Your task to perform on an android device: Go to ESPN.com Image 0: 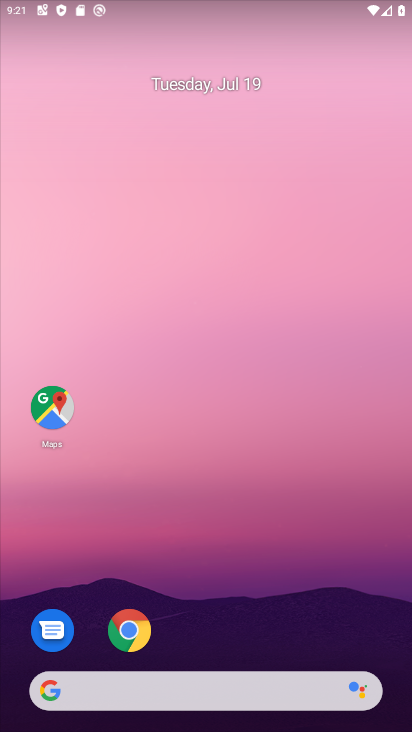
Step 0: click (134, 652)
Your task to perform on an android device: Go to ESPN.com Image 1: 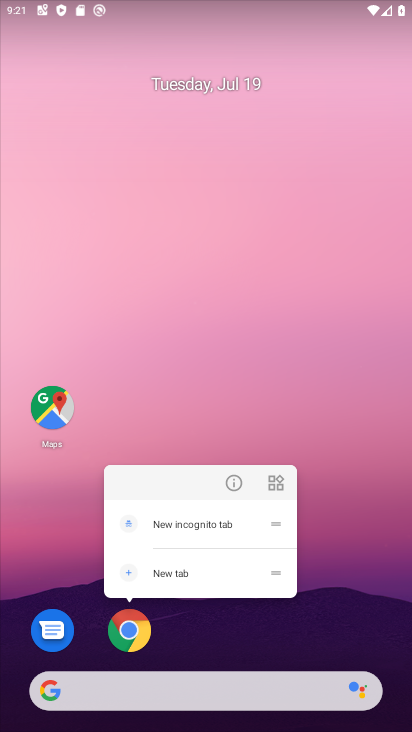
Step 1: click (129, 638)
Your task to perform on an android device: Go to ESPN.com Image 2: 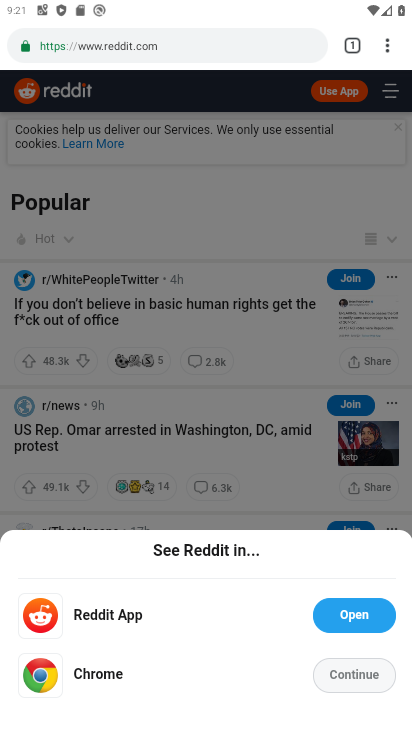
Step 2: click (168, 50)
Your task to perform on an android device: Go to ESPN.com Image 3: 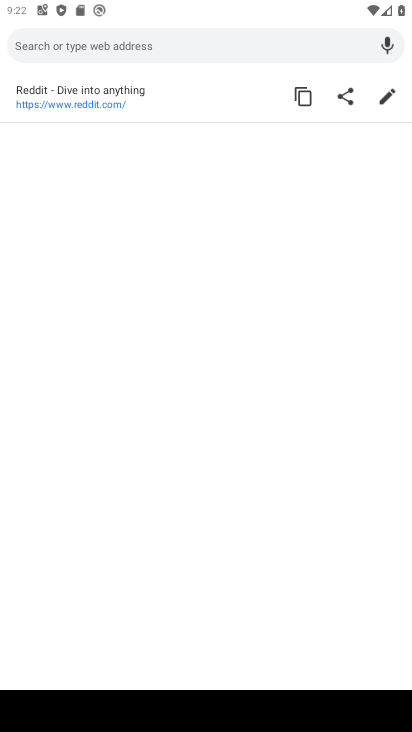
Step 3: type "espn.com"
Your task to perform on an android device: Go to ESPN.com Image 4: 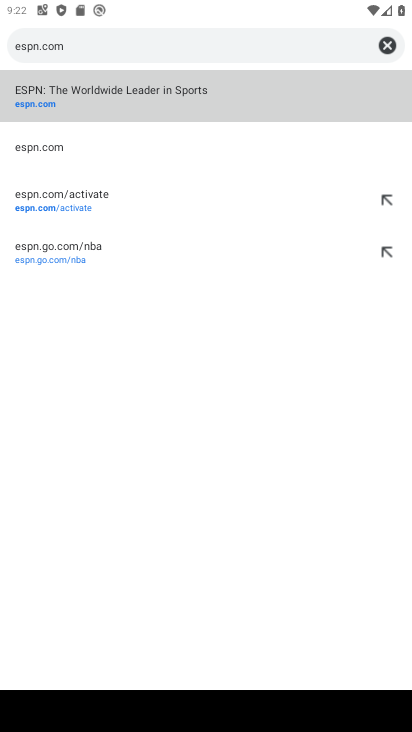
Step 4: click (175, 95)
Your task to perform on an android device: Go to ESPN.com Image 5: 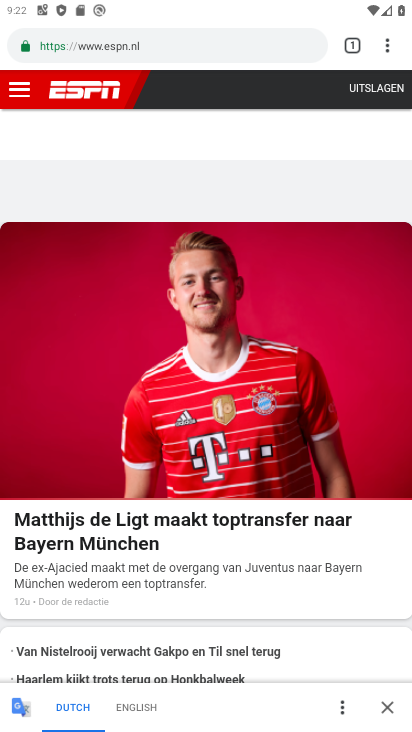
Step 5: task complete